Your task to perform on an android device: Go to accessibility settings Image 0: 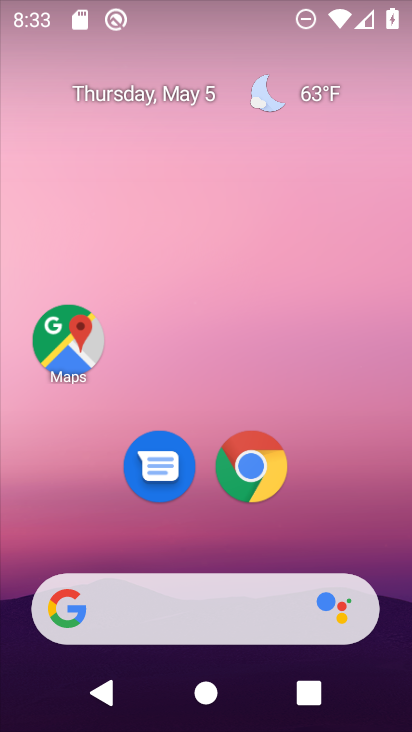
Step 0: drag from (263, 598) to (229, 57)
Your task to perform on an android device: Go to accessibility settings Image 1: 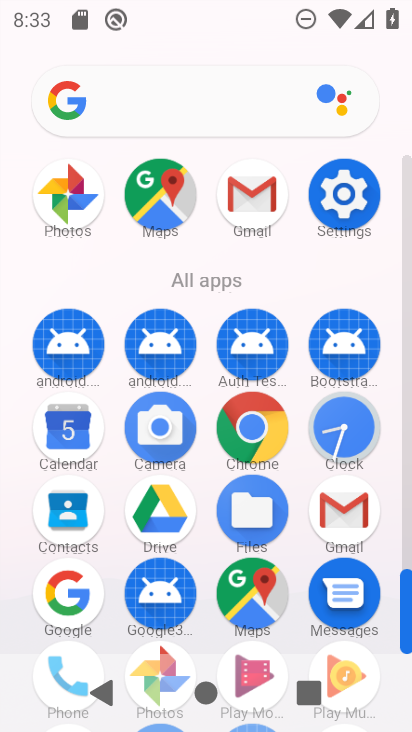
Step 1: click (357, 217)
Your task to perform on an android device: Go to accessibility settings Image 2: 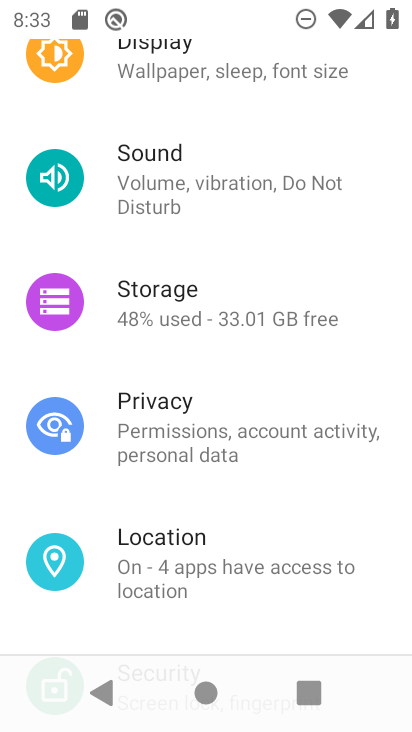
Step 2: drag from (146, 533) to (157, 119)
Your task to perform on an android device: Go to accessibility settings Image 3: 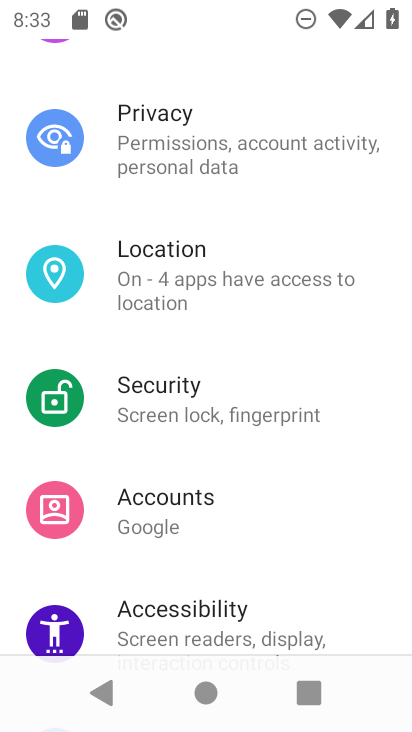
Step 3: click (188, 595)
Your task to perform on an android device: Go to accessibility settings Image 4: 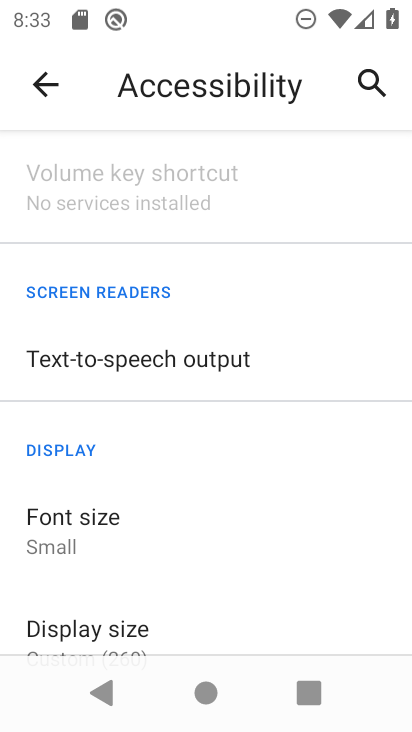
Step 4: task complete